Your task to perform on an android device: Search for top rated sushi restaurants on Maps Image 0: 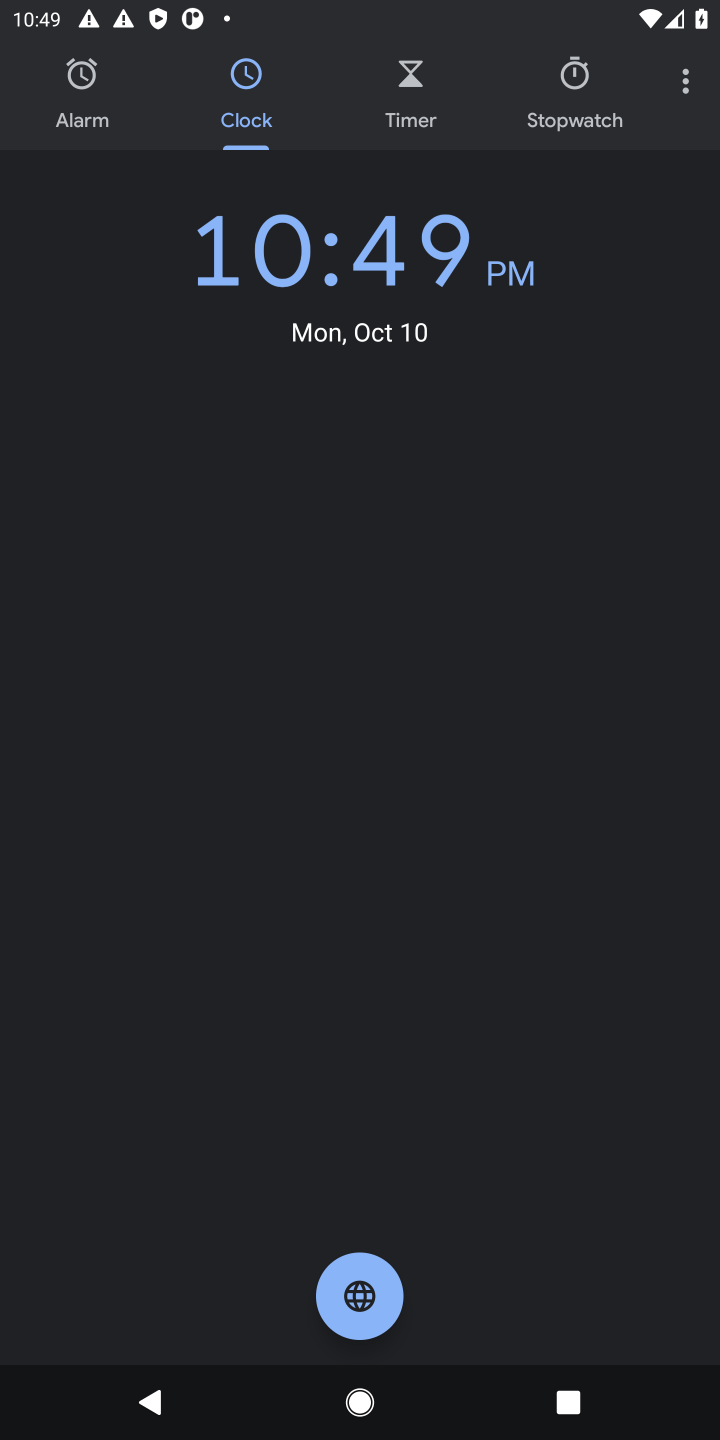
Step 0: press home button
Your task to perform on an android device: Search for top rated sushi restaurants on Maps Image 1: 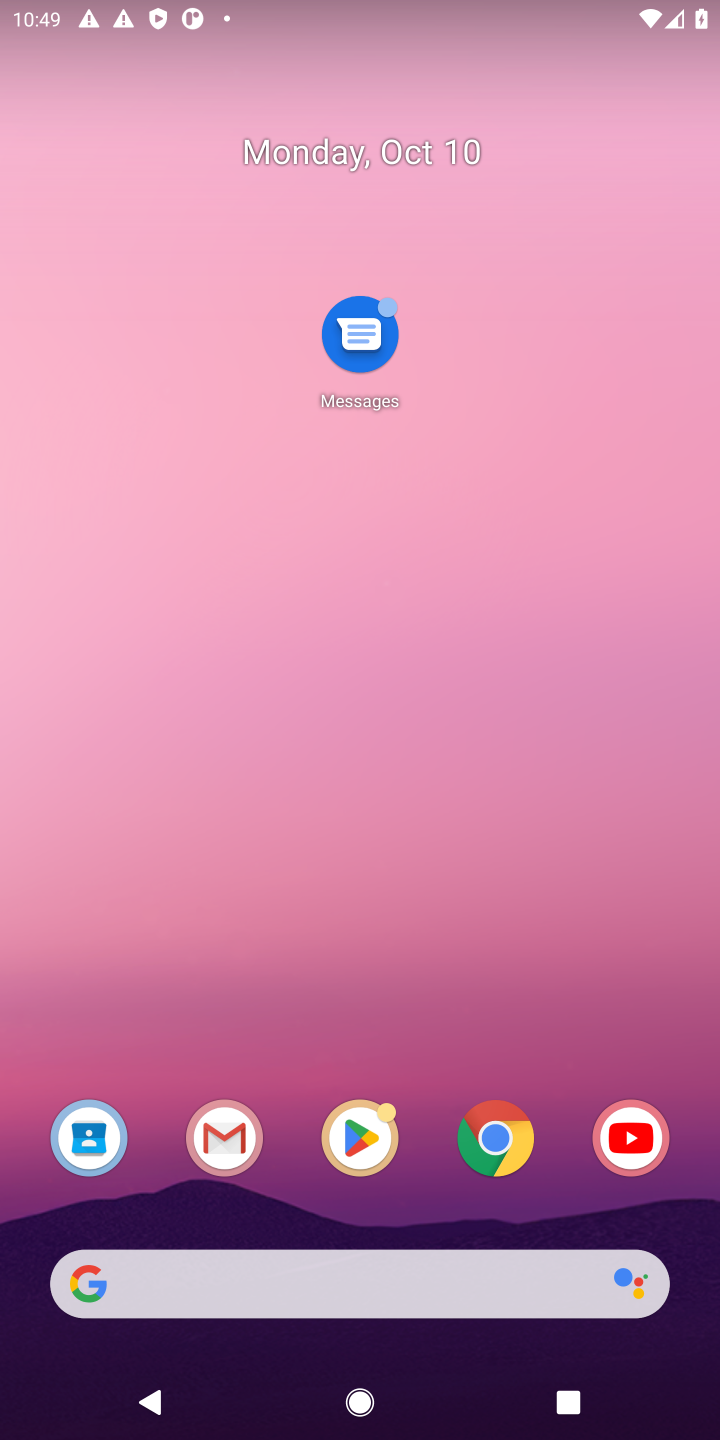
Step 1: drag from (440, 805) to (510, 157)
Your task to perform on an android device: Search for top rated sushi restaurants on Maps Image 2: 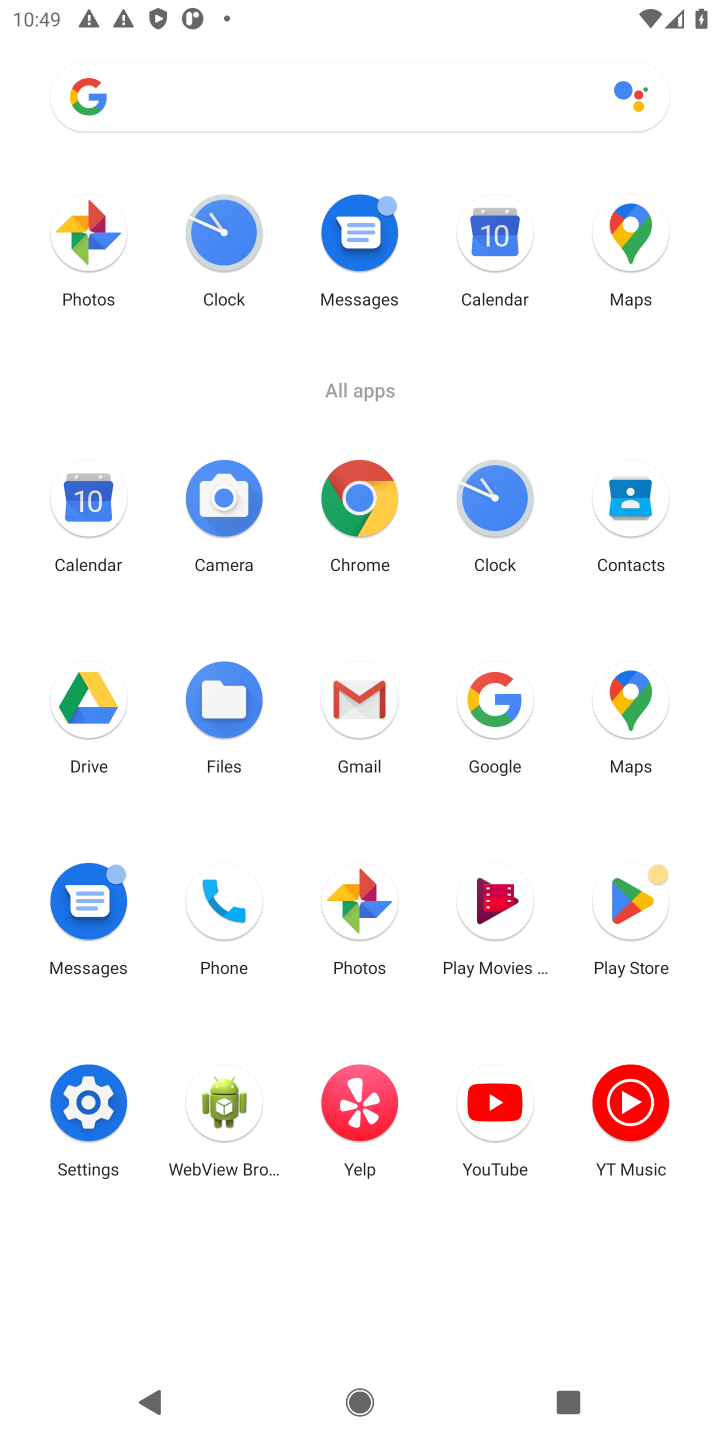
Step 2: click (618, 724)
Your task to perform on an android device: Search for top rated sushi restaurants on Maps Image 3: 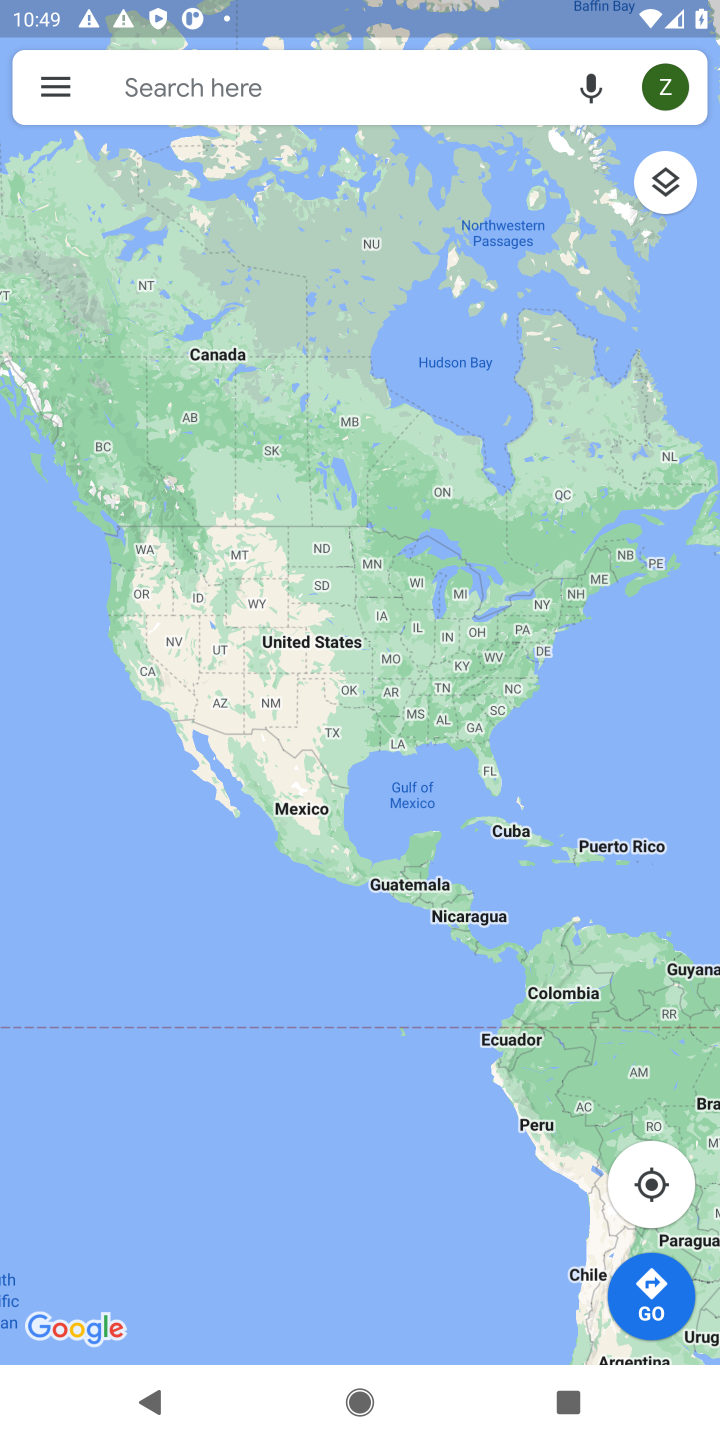
Step 3: click (220, 78)
Your task to perform on an android device: Search for top rated sushi restaurants on Maps Image 4: 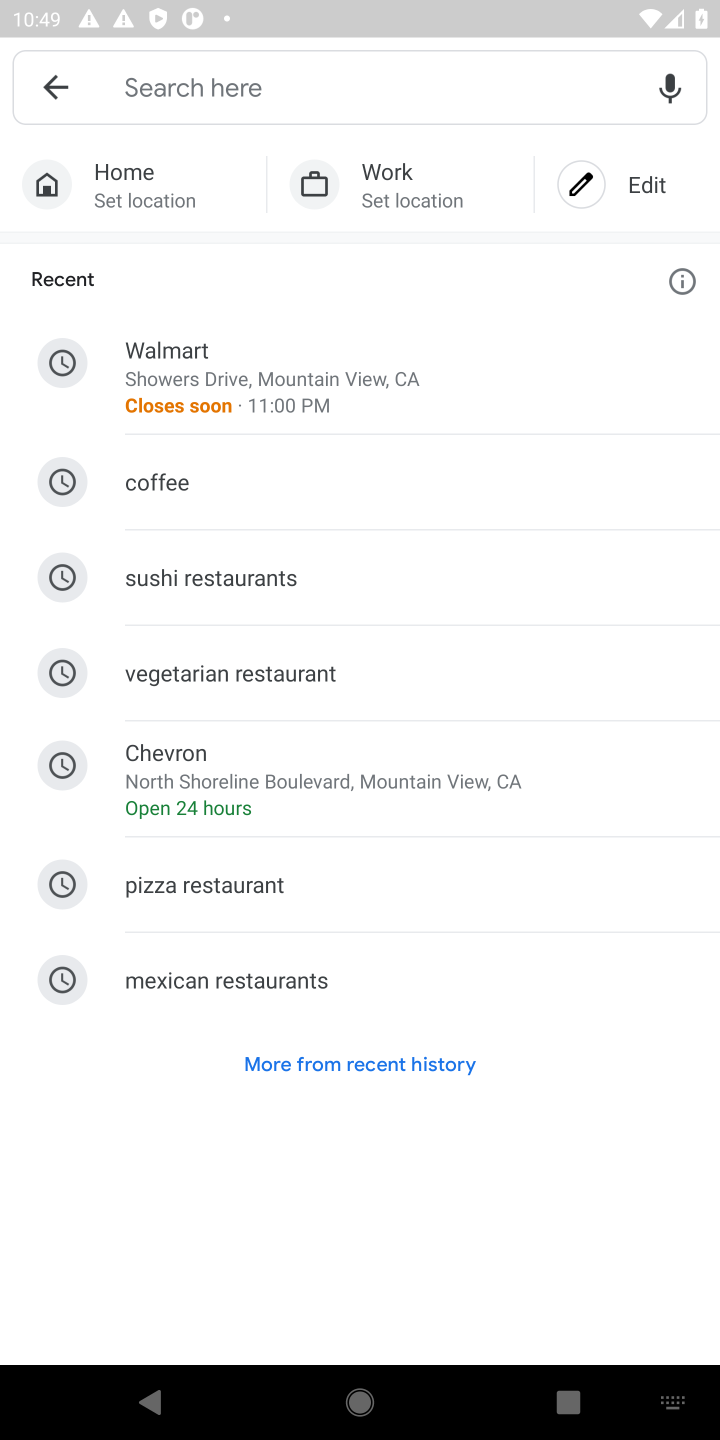
Step 4: type "top rated sushi restaurants"
Your task to perform on an android device: Search for top rated sushi restaurants on Maps Image 5: 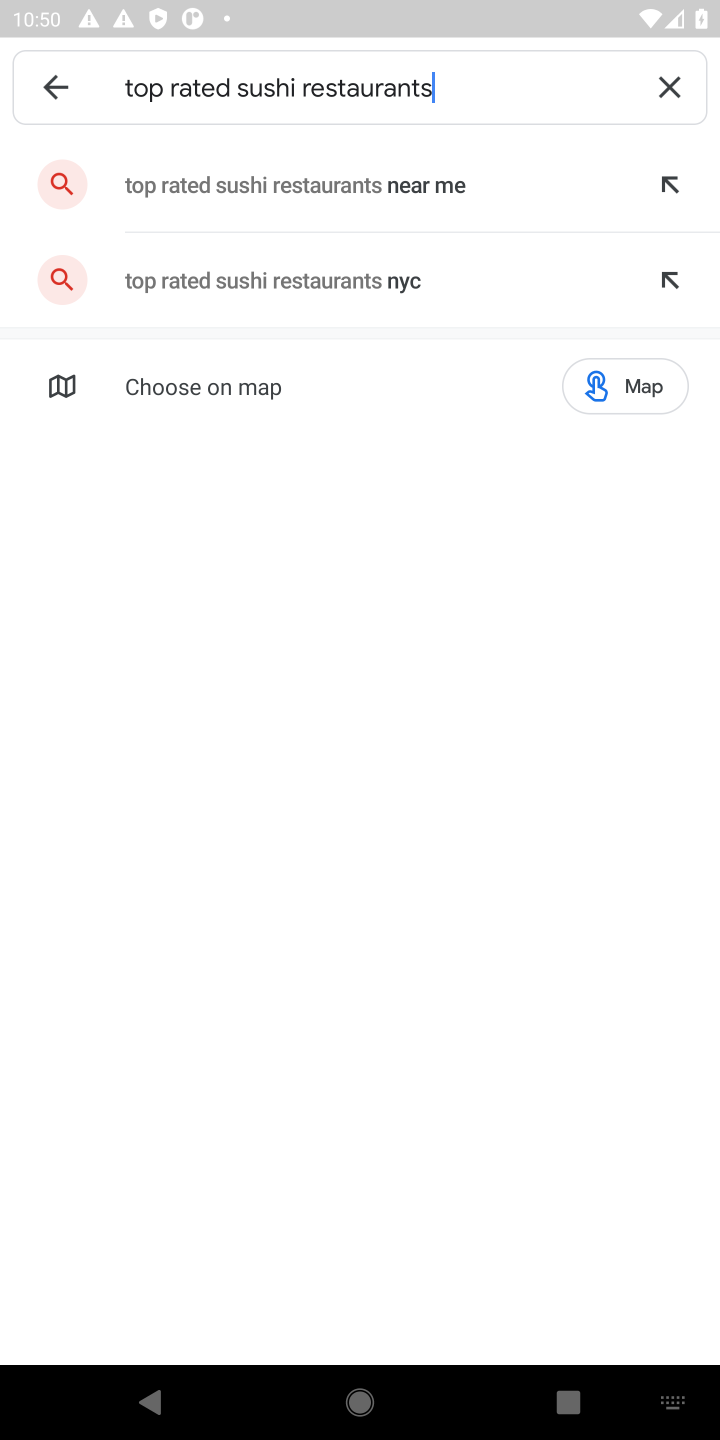
Step 5: press enter
Your task to perform on an android device: Search for top rated sushi restaurants on Maps Image 6: 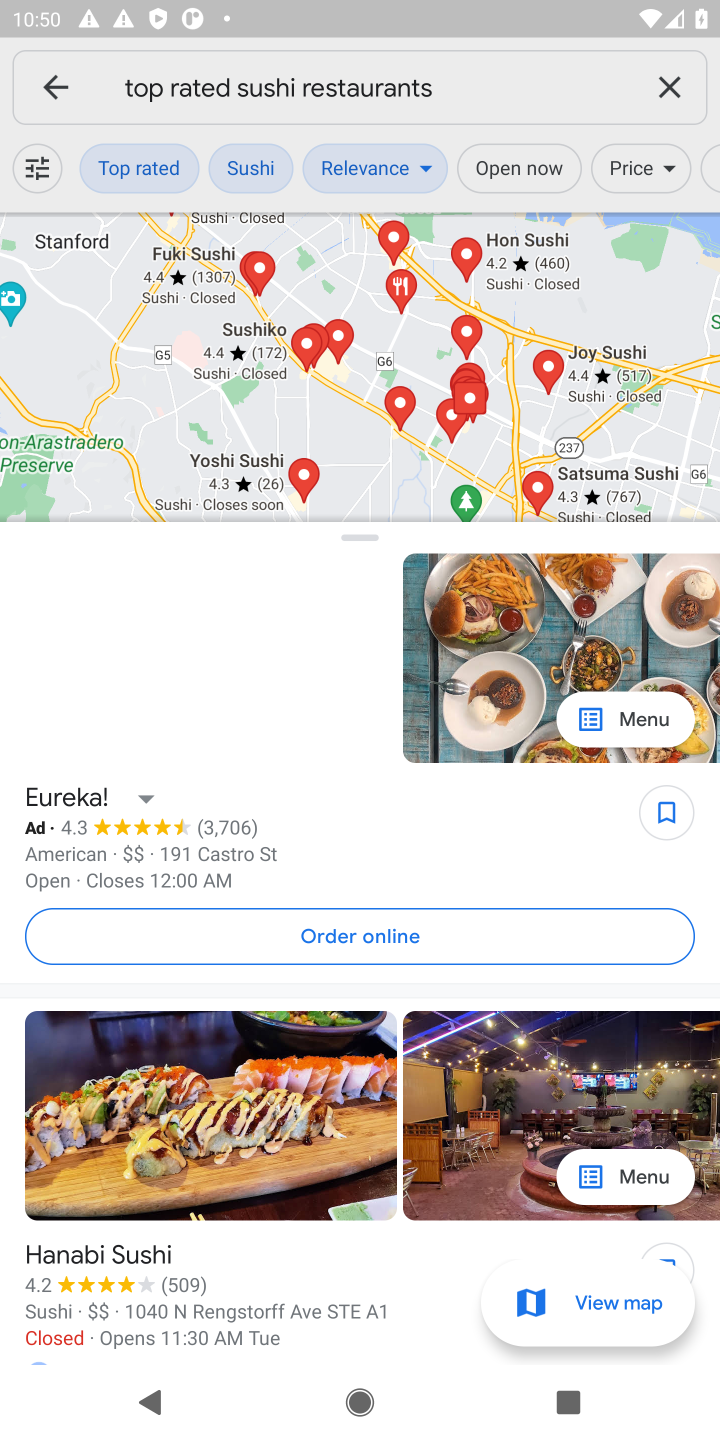
Step 6: task complete